Your task to perform on an android device: Open Chrome and go to settings Image 0: 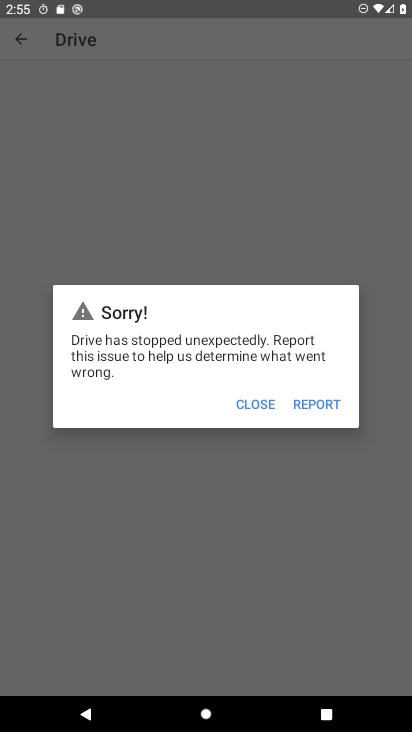
Step 0: press home button
Your task to perform on an android device: Open Chrome and go to settings Image 1: 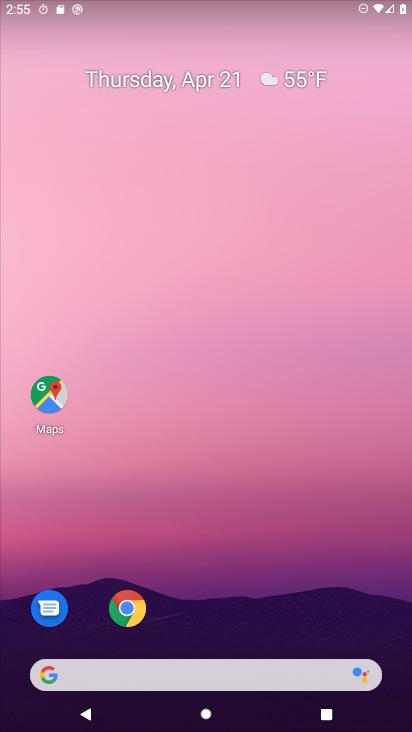
Step 1: click (131, 607)
Your task to perform on an android device: Open Chrome and go to settings Image 2: 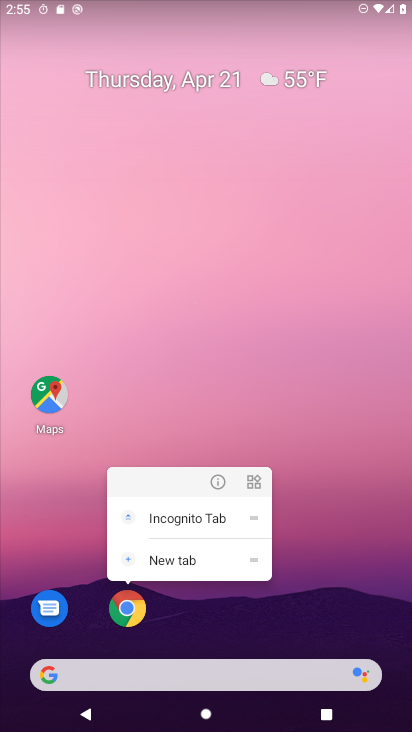
Step 2: click (131, 607)
Your task to perform on an android device: Open Chrome and go to settings Image 3: 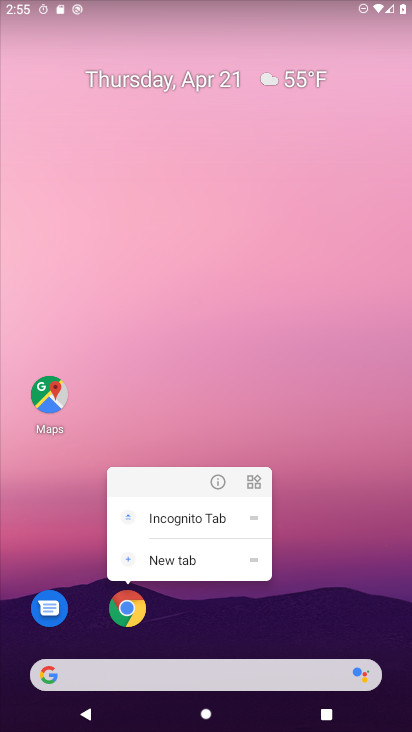
Step 3: click (130, 607)
Your task to perform on an android device: Open Chrome and go to settings Image 4: 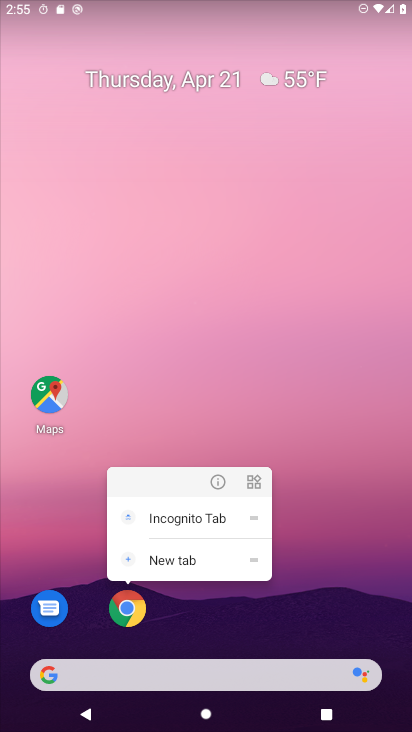
Step 4: click (130, 607)
Your task to perform on an android device: Open Chrome and go to settings Image 5: 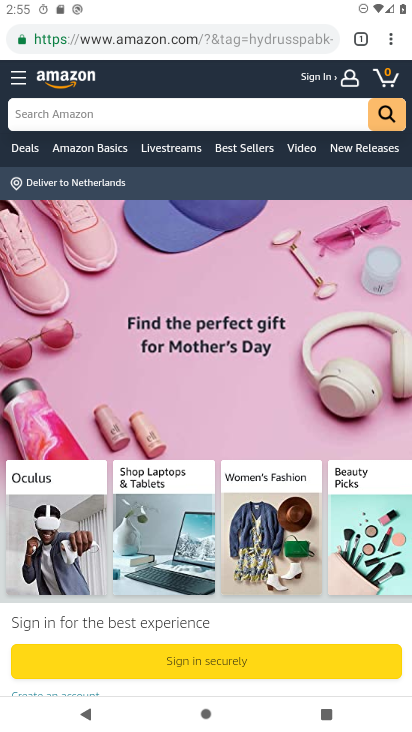
Step 5: click (387, 41)
Your task to perform on an android device: Open Chrome and go to settings Image 6: 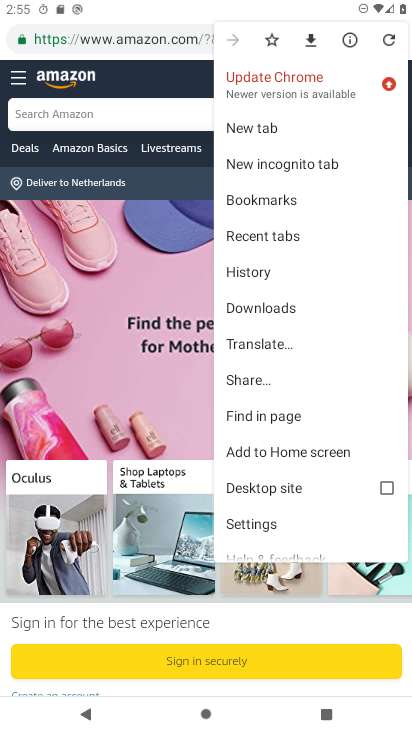
Step 6: click (291, 519)
Your task to perform on an android device: Open Chrome and go to settings Image 7: 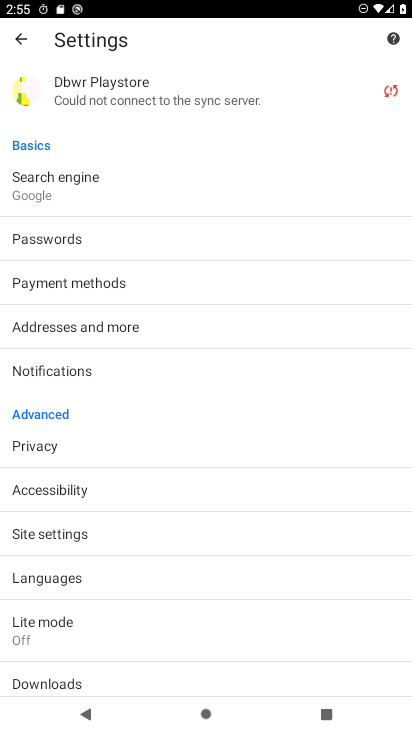
Step 7: task complete